Your task to perform on an android device: open a bookmark in the chrome app Image 0: 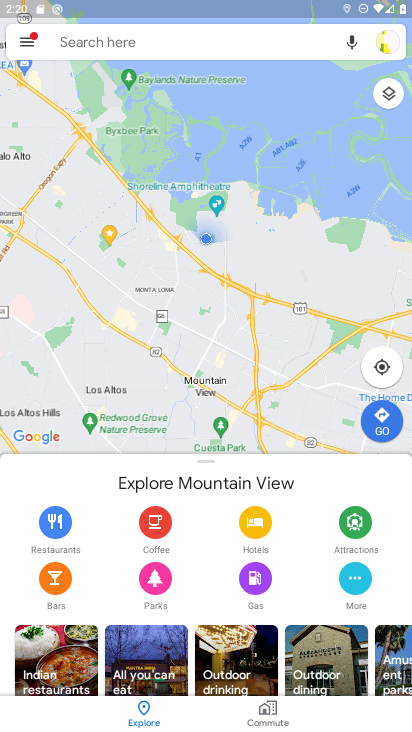
Step 0: press home button
Your task to perform on an android device: open a bookmark in the chrome app Image 1: 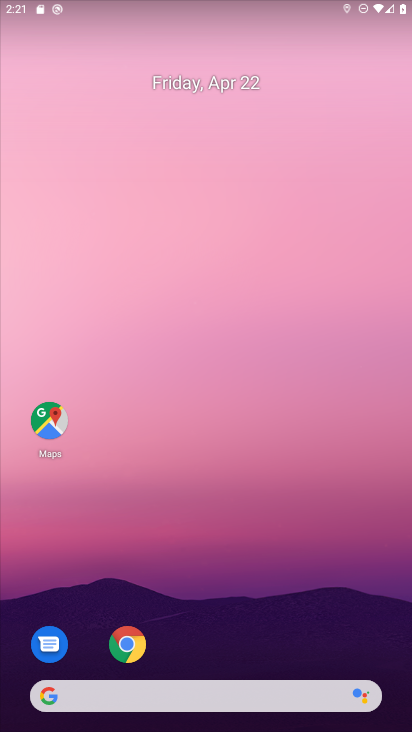
Step 1: click (124, 643)
Your task to perform on an android device: open a bookmark in the chrome app Image 2: 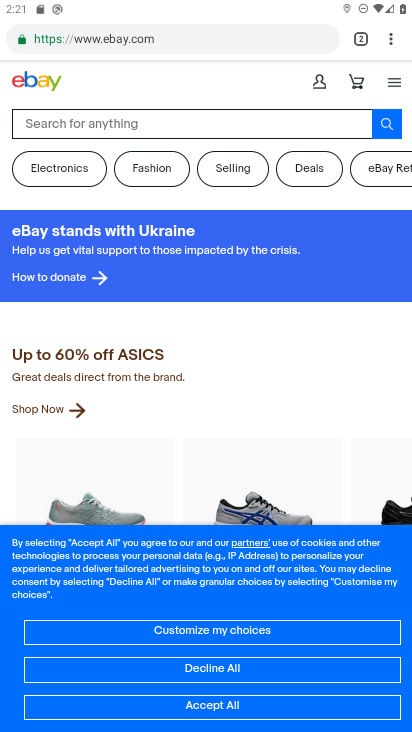
Step 2: task complete